Your task to perform on an android device: uninstall "TextNow: Call + Text Unlimited" Image 0: 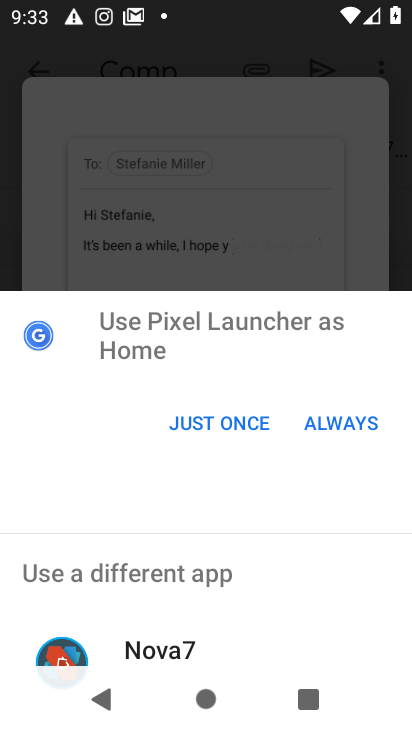
Step 0: press home button
Your task to perform on an android device: uninstall "TextNow: Call + Text Unlimited" Image 1: 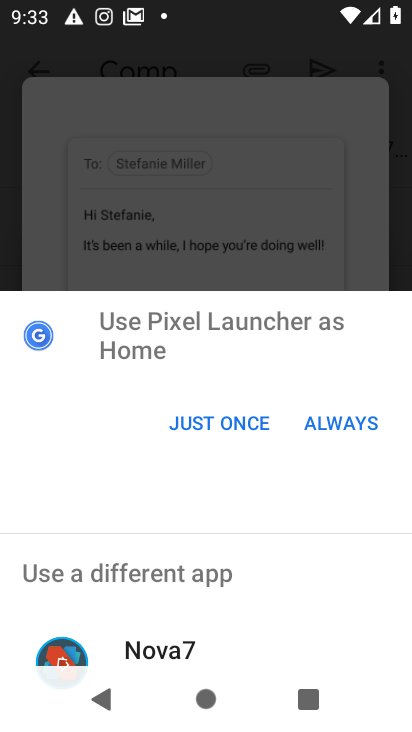
Step 1: press home button
Your task to perform on an android device: uninstall "TextNow: Call + Text Unlimited" Image 2: 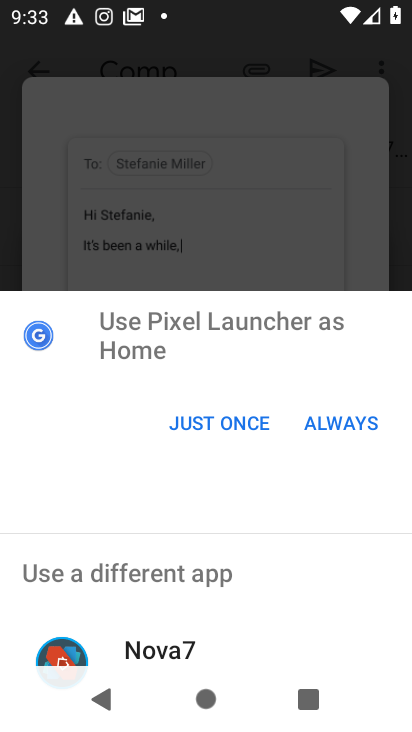
Step 2: press home button
Your task to perform on an android device: uninstall "TextNow: Call + Text Unlimited" Image 3: 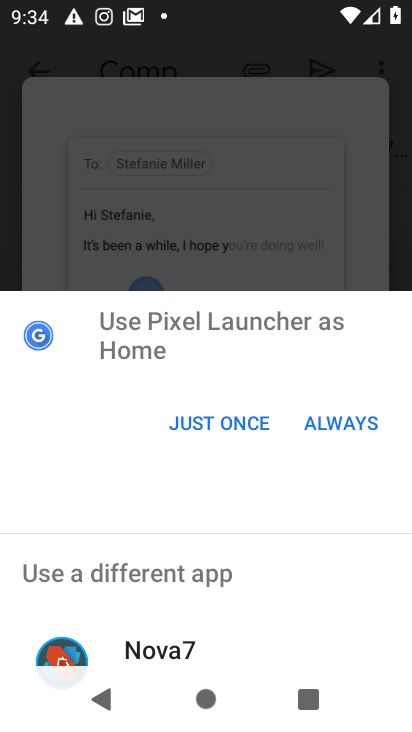
Step 3: press home button
Your task to perform on an android device: uninstall "TextNow: Call + Text Unlimited" Image 4: 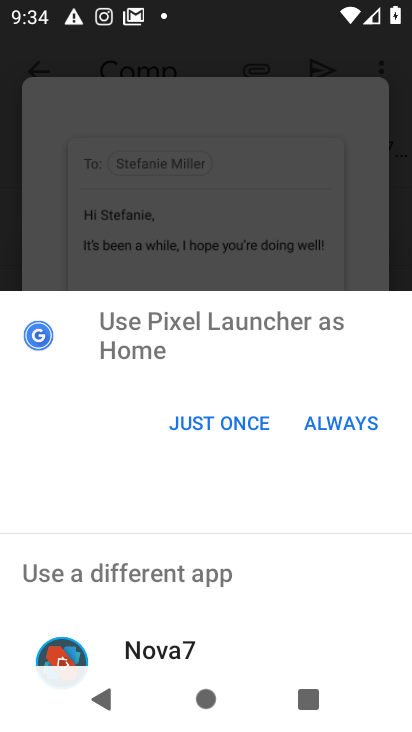
Step 4: click (235, 424)
Your task to perform on an android device: uninstall "TextNow: Call + Text Unlimited" Image 5: 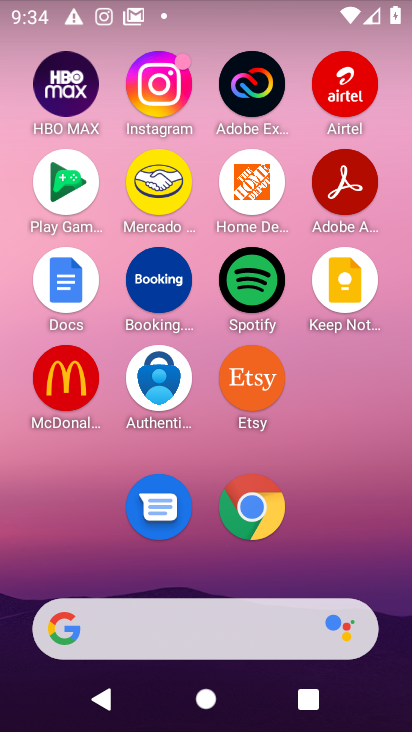
Step 5: drag from (181, 453) to (139, 25)
Your task to perform on an android device: uninstall "TextNow: Call + Text Unlimited" Image 6: 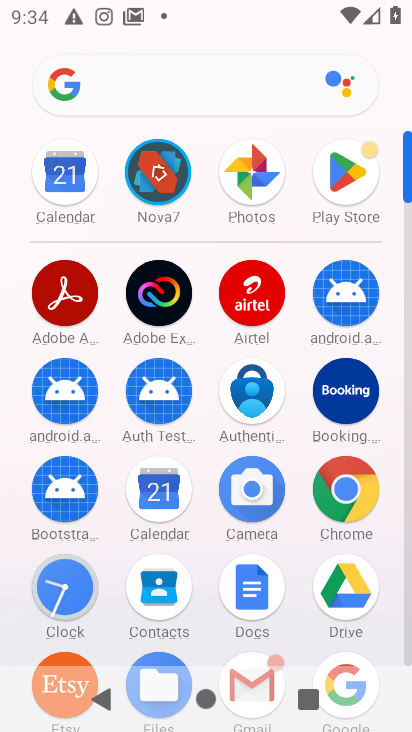
Step 6: click (336, 167)
Your task to perform on an android device: uninstall "TextNow: Call + Text Unlimited" Image 7: 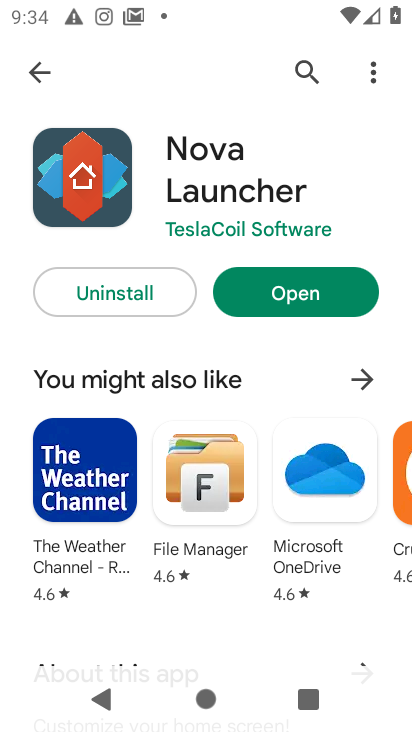
Step 7: click (30, 68)
Your task to perform on an android device: uninstall "TextNow: Call + Text Unlimited" Image 8: 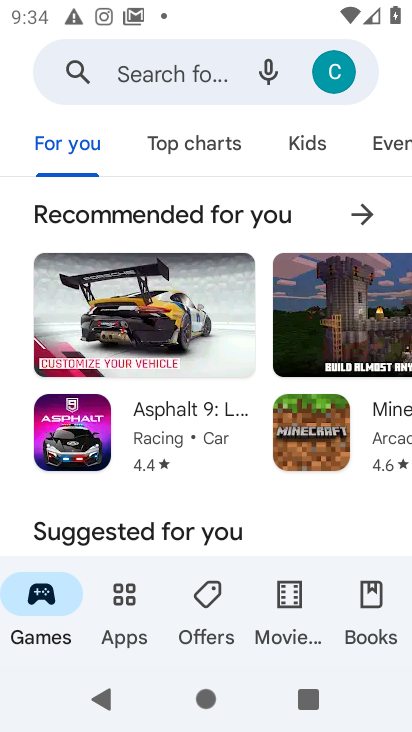
Step 8: click (147, 75)
Your task to perform on an android device: uninstall "TextNow: Call + Text Unlimited" Image 9: 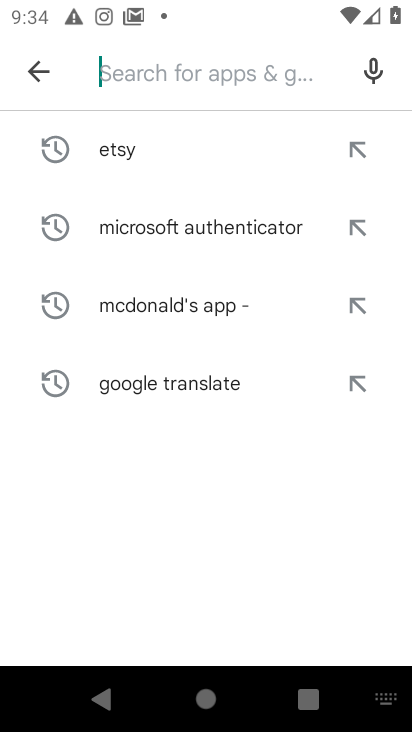
Step 9: type "TextNow: Call + Text Unlimited"
Your task to perform on an android device: uninstall "TextNow: Call + Text Unlimited" Image 10: 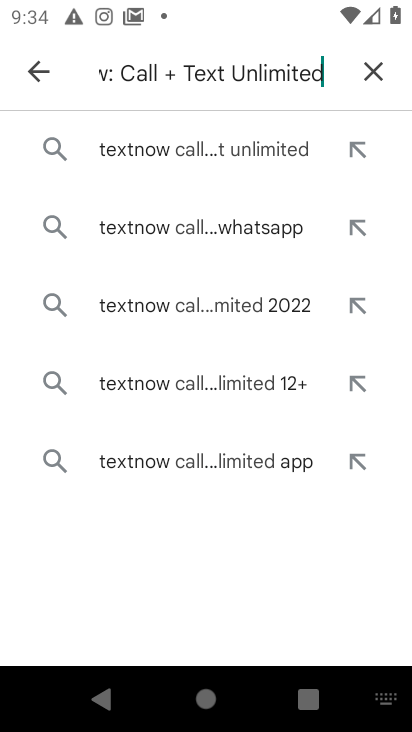
Step 10: click (155, 150)
Your task to perform on an android device: uninstall "TextNow: Call + Text Unlimited" Image 11: 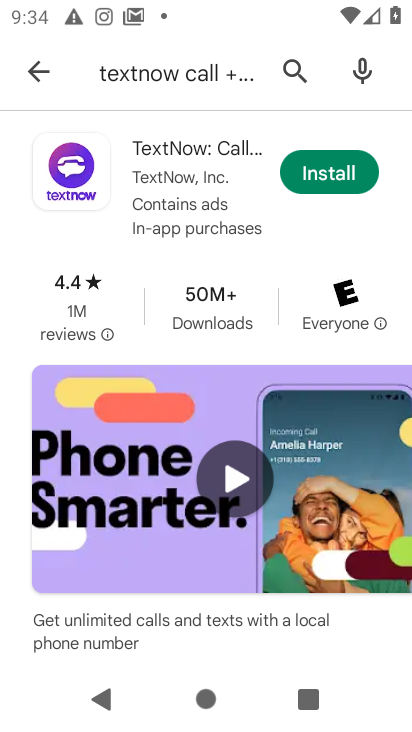
Step 11: click (307, 164)
Your task to perform on an android device: uninstall "TextNow: Call + Text Unlimited" Image 12: 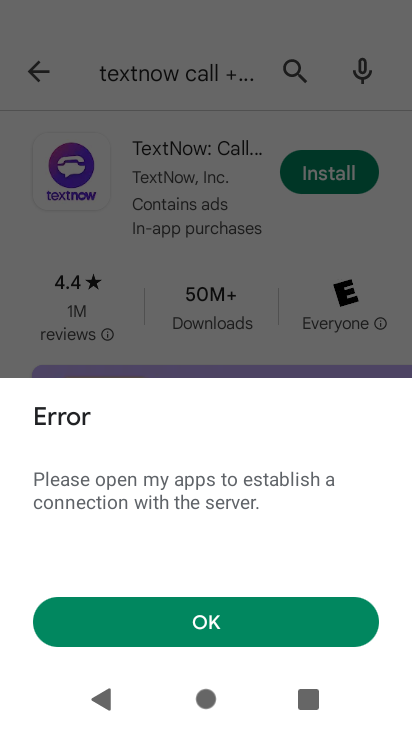
Step 12: task complete